Your task to perform on an android device: Open Reddit.com Image 0: 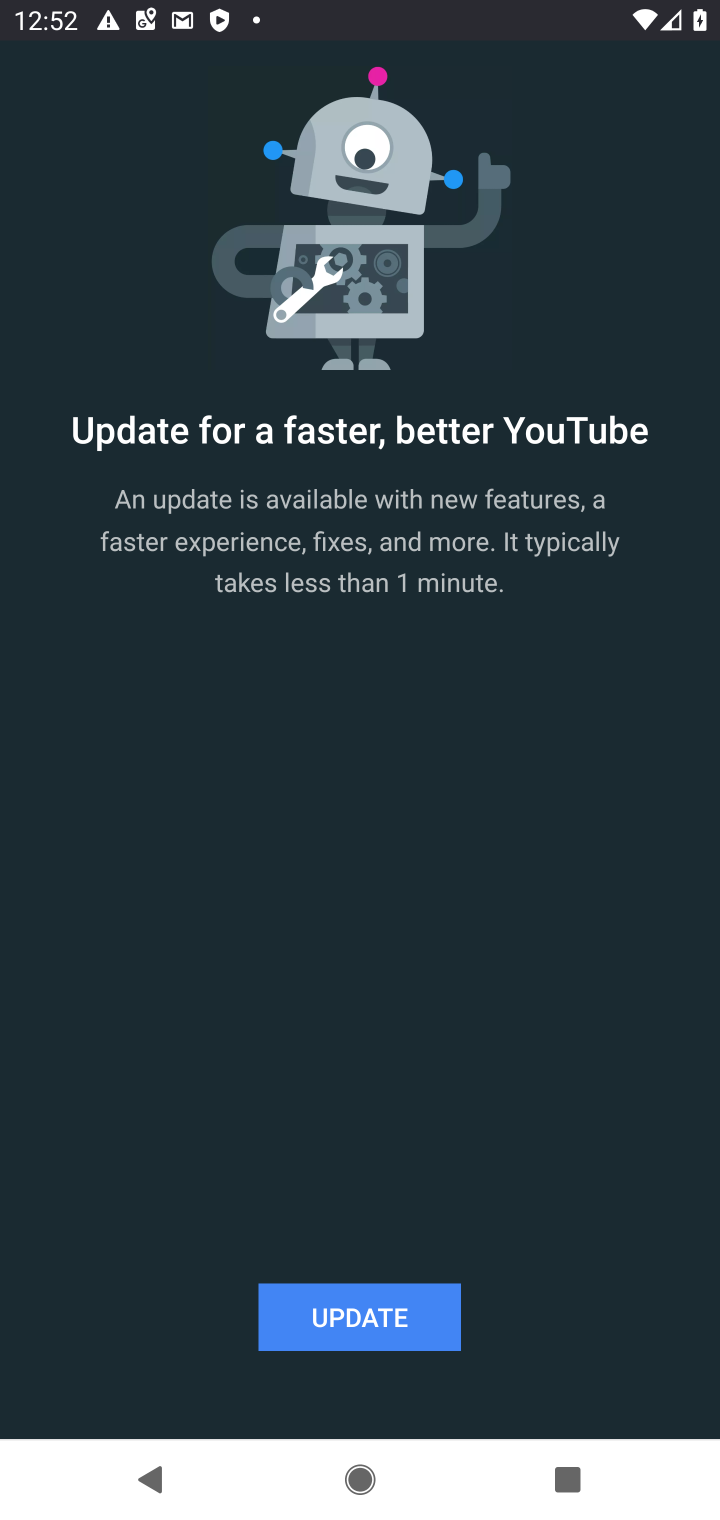
Step 0: press home button
Your task to perform on an android device: Open Reddit.com Image 1: 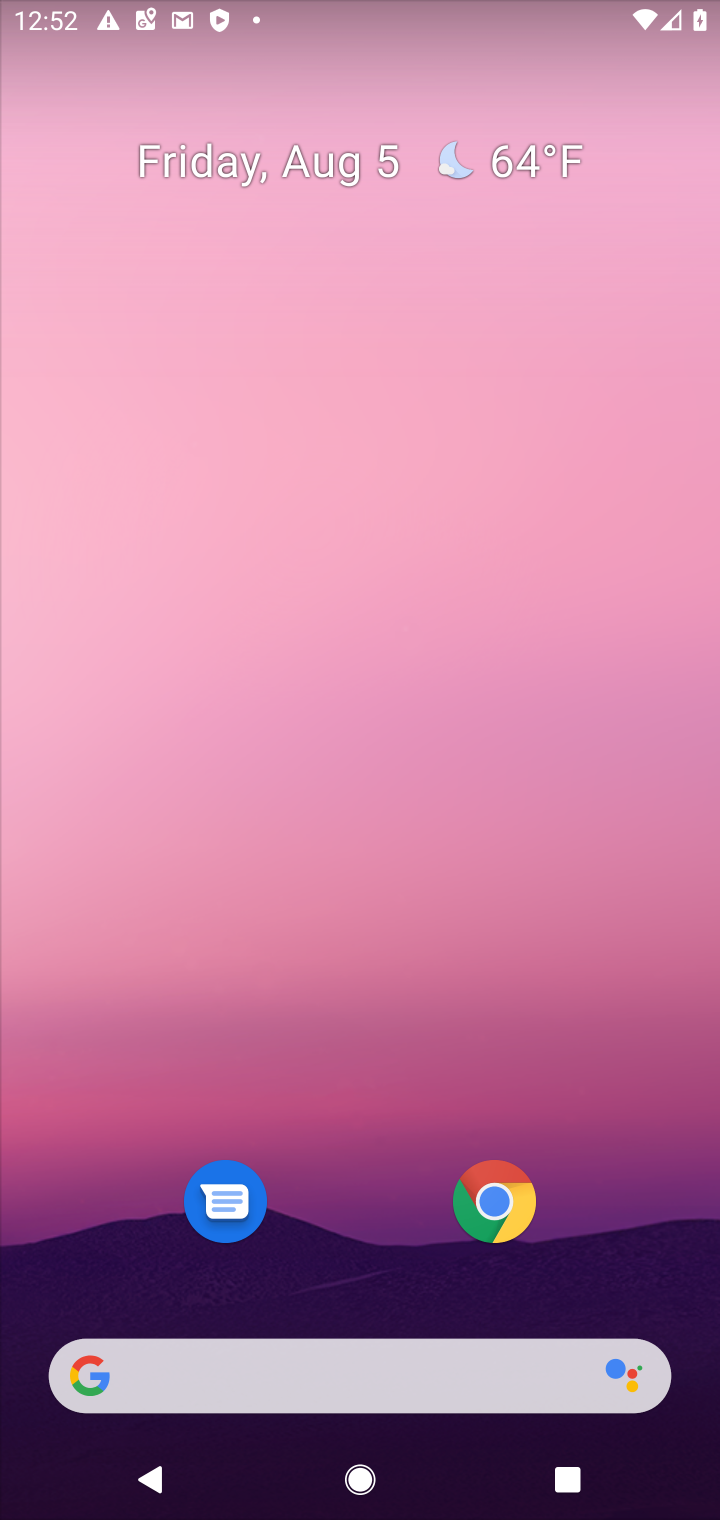
Step 1: click (508, 1180)
Your task to perform on an android device: Open Reddit.com Image 2: 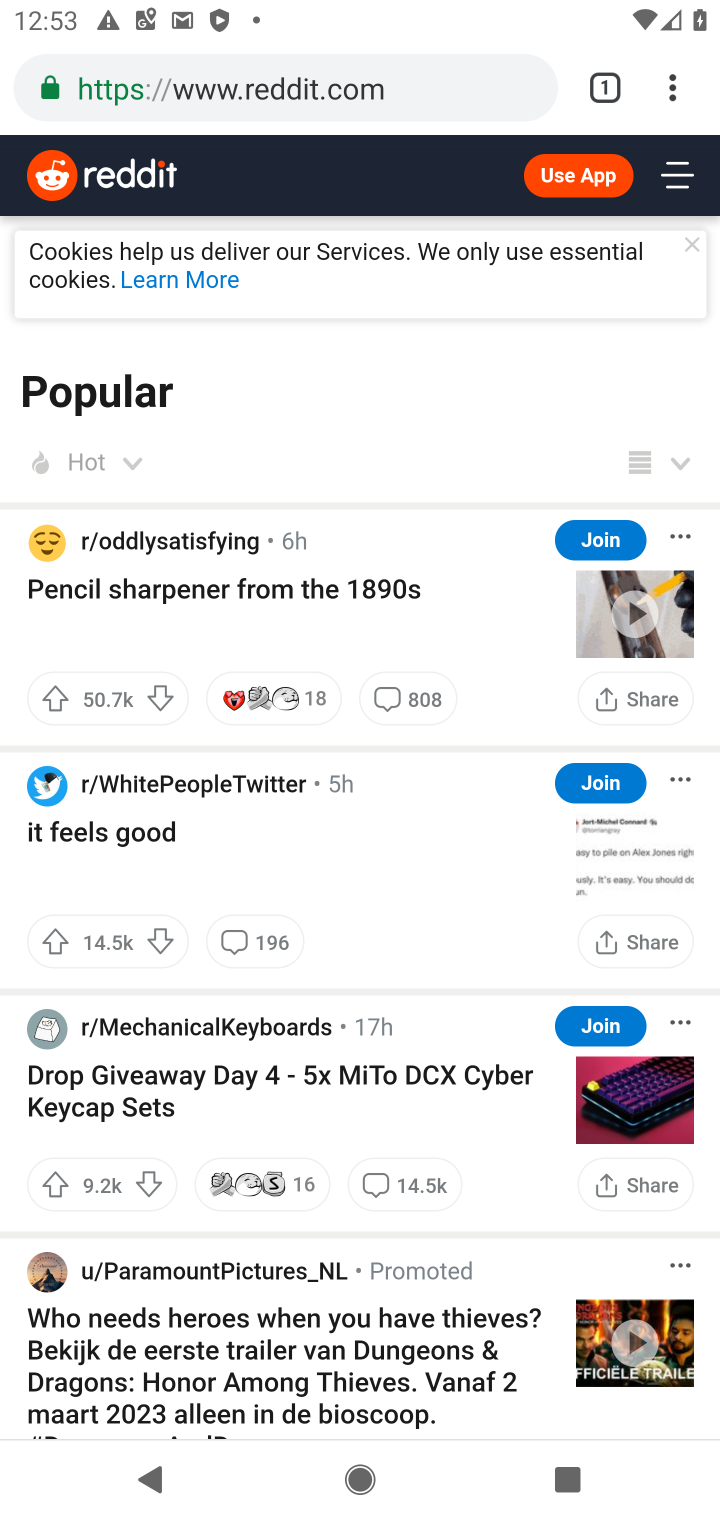
Step 2: task complete